Your task to perform on an android device: open a new tab in the chrome app Image 0: 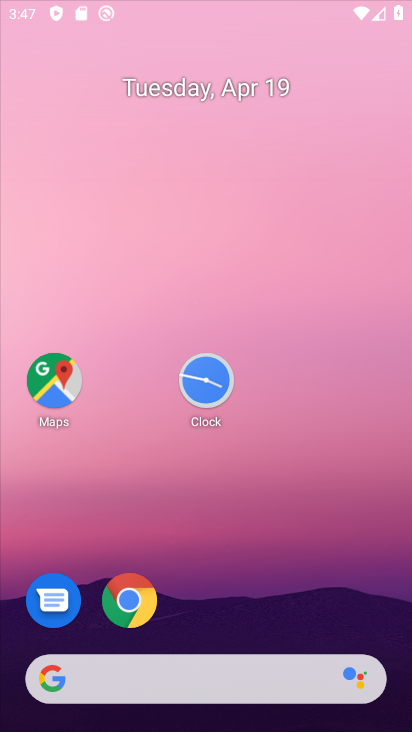
Step 0: drag from (237, 712) to (180, 155)
Your task to perform on an android device: open a new tab in the chrome app Image 1: 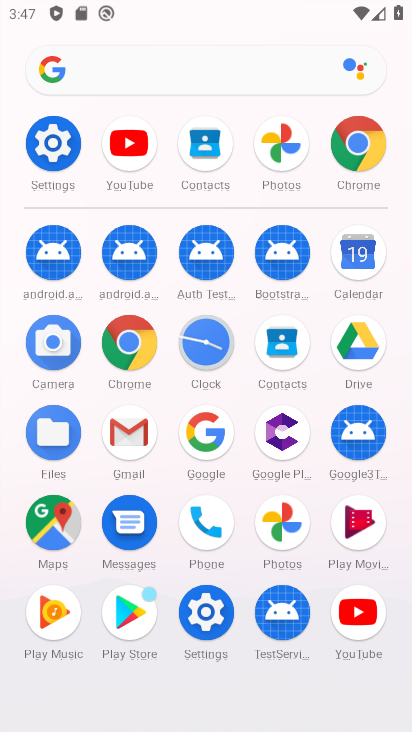
Step 1: click (350, 135)
Your task to perform on an android device: open a new tab in the chrome app Image 2: 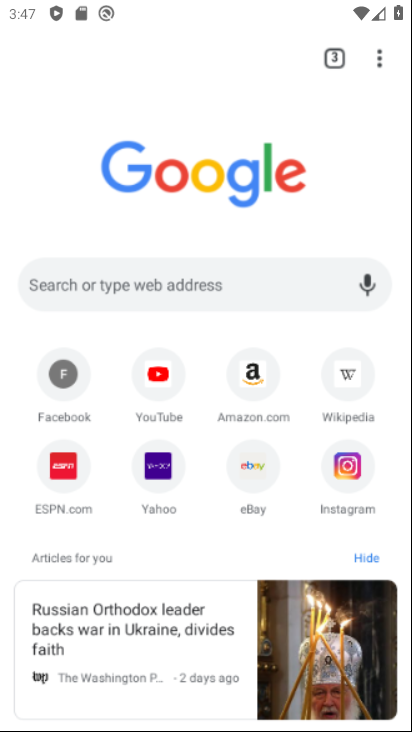
Step 2: click (350, 135)
Your task to perform on an android device: open a new tab in the chrome app Image 3: 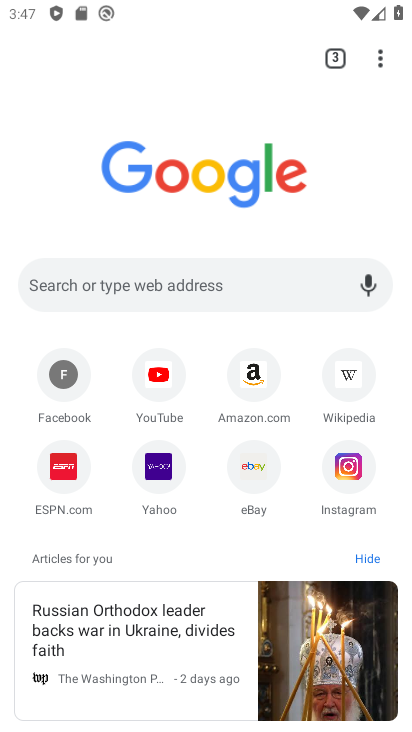
Step 3: click (376, 51)
Your task to perform on an android device: open a new tab in the chrome app Image 4: 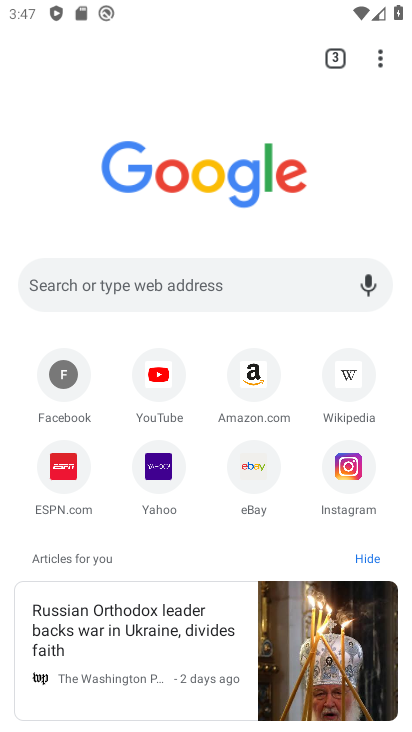
Step 4: click (376, 51)
Your task to perform on an android device: open a new tab in the chrome app Image 5: 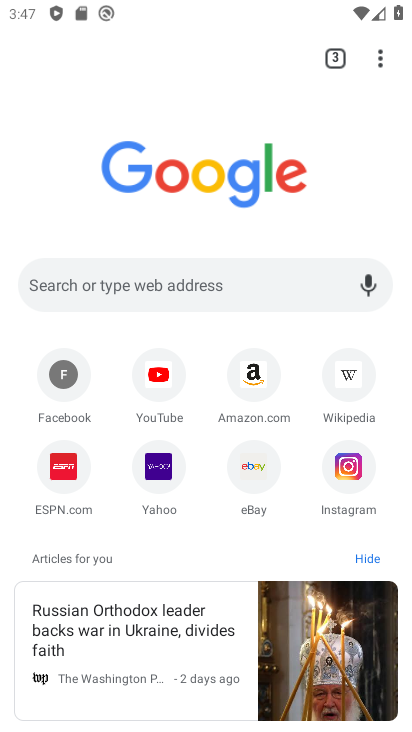
Step 5: click (376, 51)
Your task to perform on an android device: open a new tab in the chrome app Image 6: 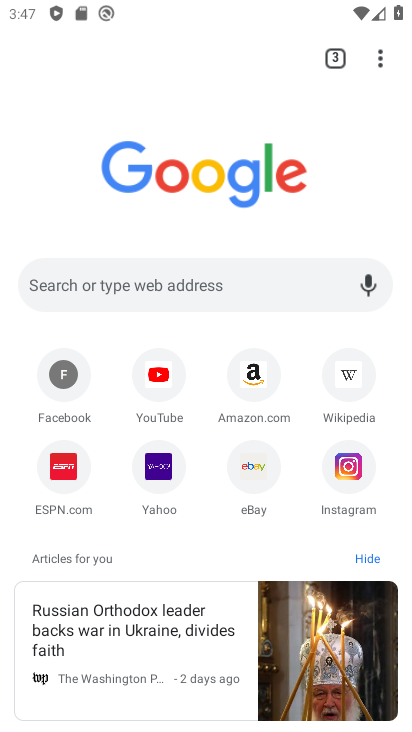
Step 6: click (376, 51)
Your task to perform on an android device: open a new tab in the chrome app Image 7: 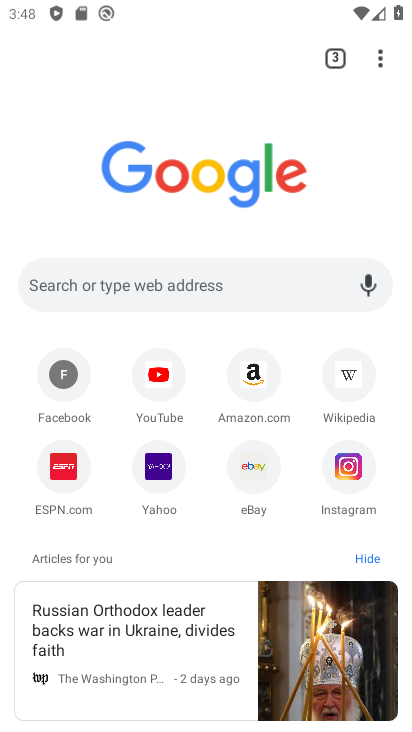
Step 7: click (381, 49)
Your task to perform on an android device: open a new tab in the chrome app Image 8: 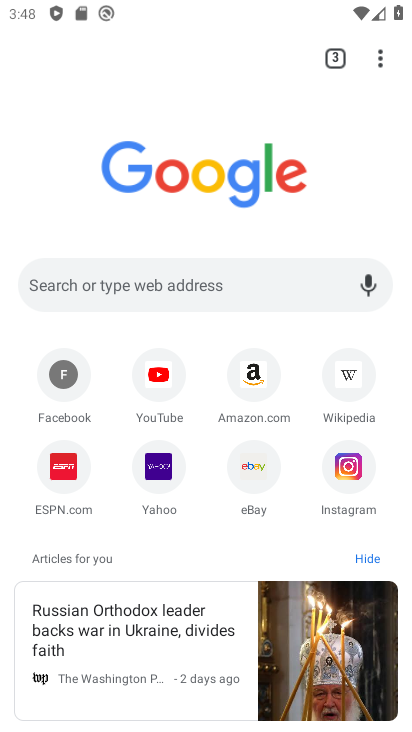
Step 8: click (378, 56)
Your task to perform on an android device: open a new tab in the chrome app Image 9: 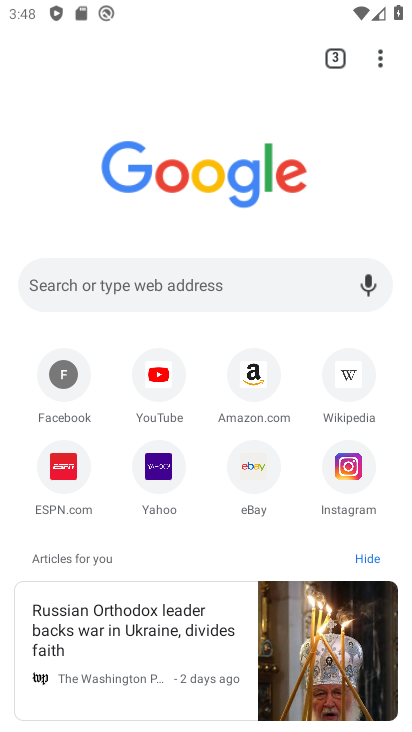
Step 9: click (379, 57)
Your task to perform on an android device: open a new tab in the chrome app Image 10: 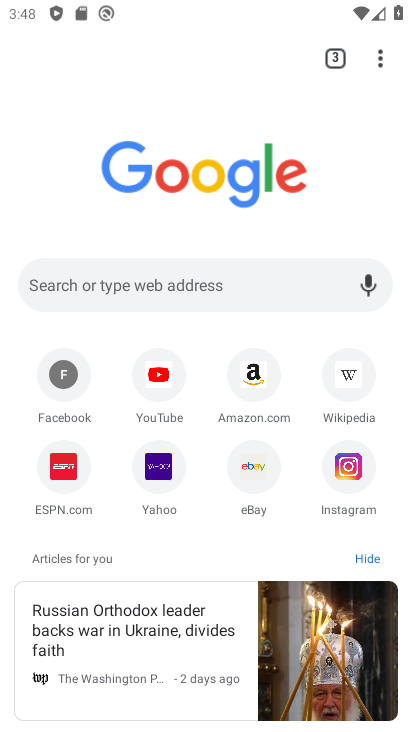
Step 10: click (379, 56)
Your task to perform on an android device: open a new tab in the chrome app Image 11: 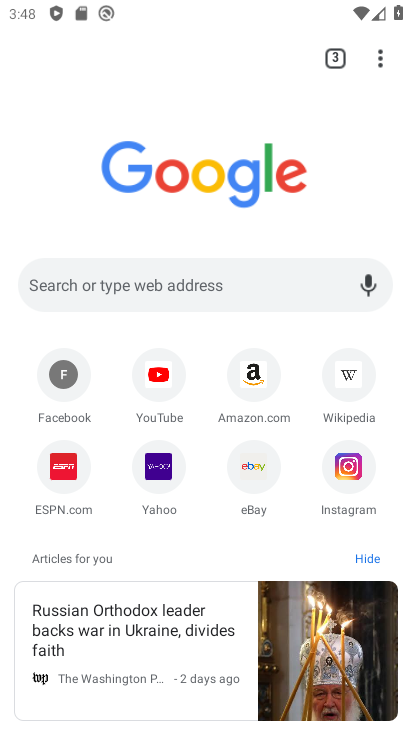
Step 11: click (378, 56)
Your task to perform on an android device: open a new tab in the chrome app Image 12: 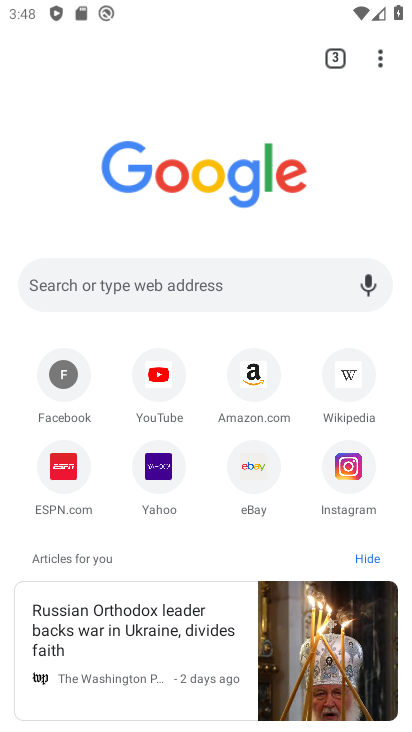
Step 12: click (374, 51)
Your task to perform on an android device: open a new tab in the chrome app Image 13: 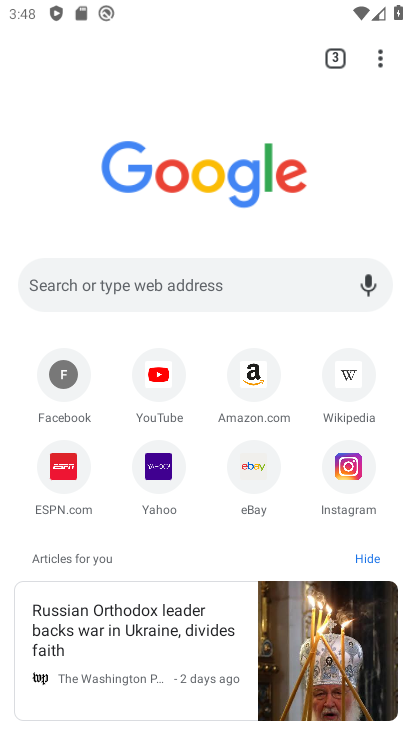
Step 13: click (373, 51)
Your task to perform on an android device: open a new tab in the chrome app Image 14: 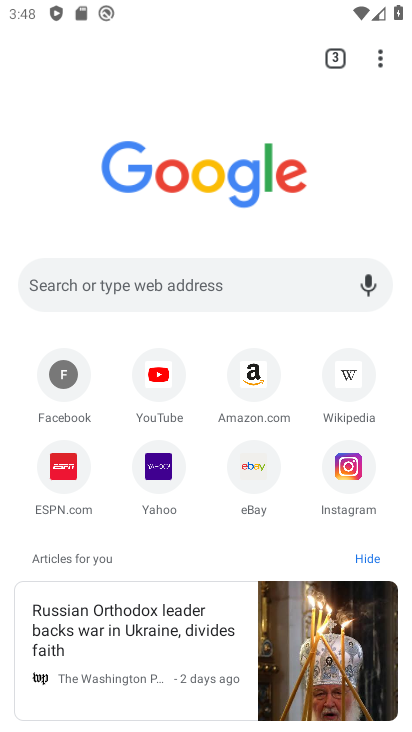
Step 14: click (378, 53)
Your task to perform on an android device: open a new tab in the chrome app Image 15: 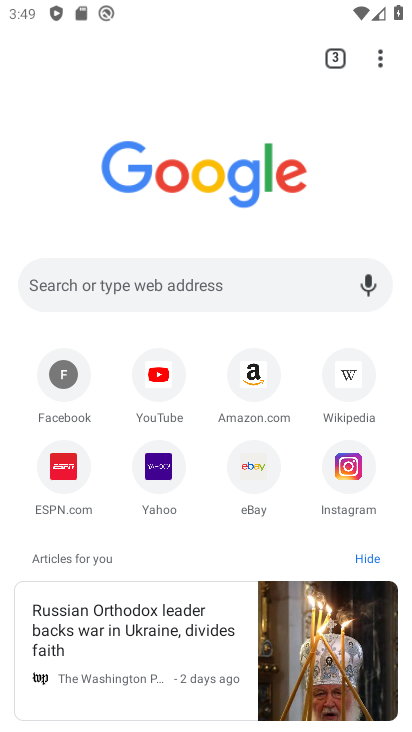
Step 15: click (375, 54)
Your task to perform on an android device: open a new tab in the chrome app Image 16: 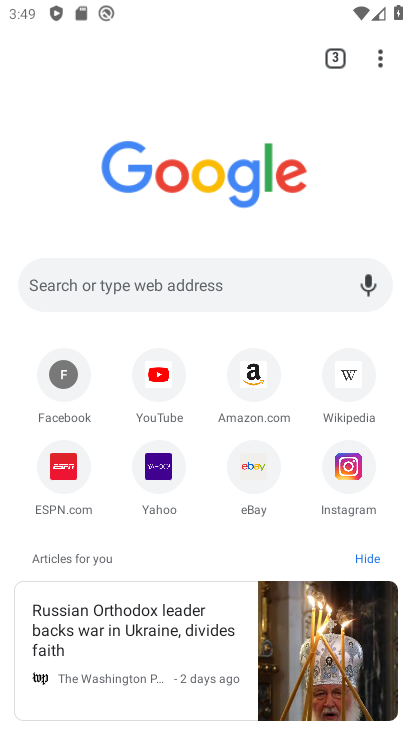
Step 16: click (183, 175)
Your task to perform on an android device: open a new tab in the chrome app Image 17: 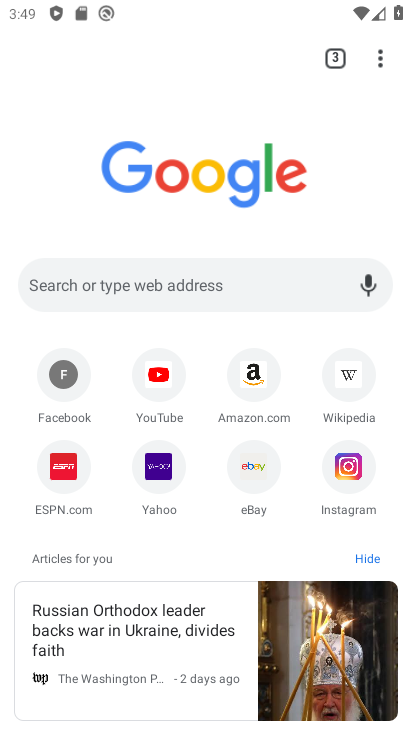
Step 17: click (183, 175)
Your task to perform on an android device: open a new tab in the chrome app Image 18: 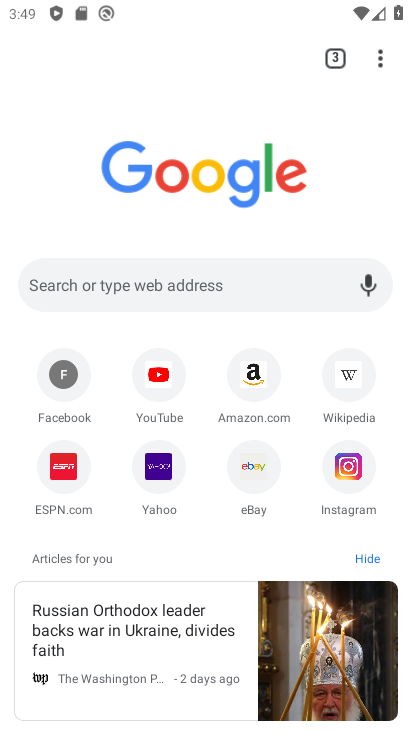
Step 18: task complete